Your task to perform on an android device: install app "LiveIn - Share Your Moment" Image 0: 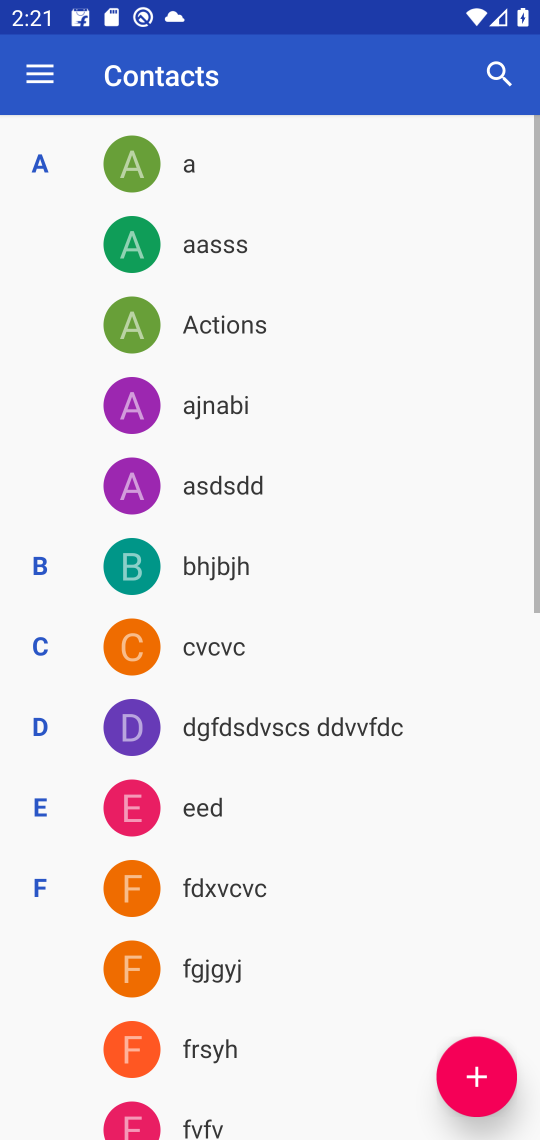
Step 0: press home button
Your task to perform on an android device: install app "LiveIn - Share Your Moment" Image 1: 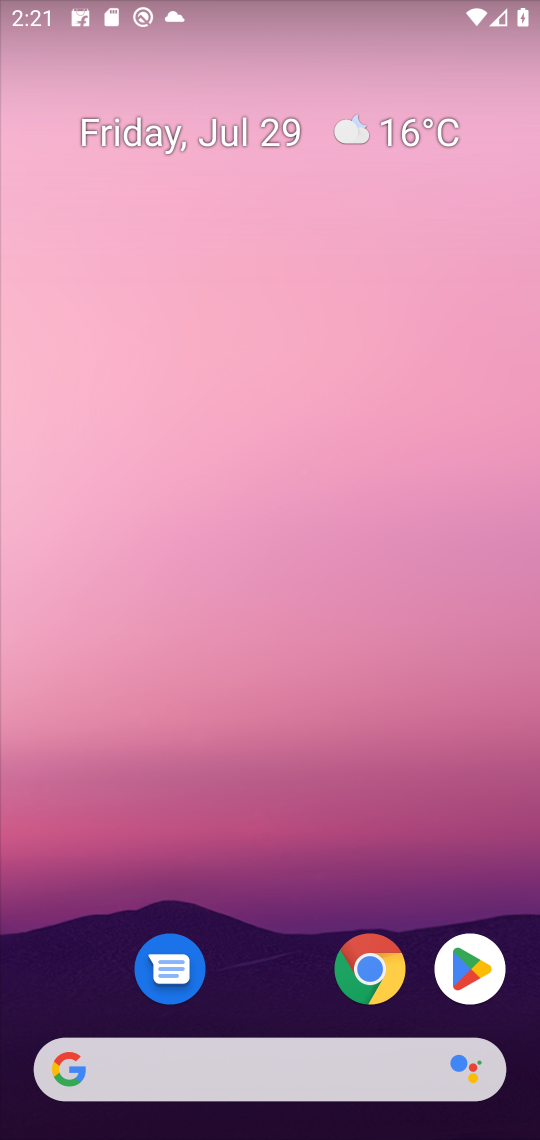
Step 1: click (483, 981)
Your task to perform on an android device: install app "LiveIn - Share Your Moment" Image 2: 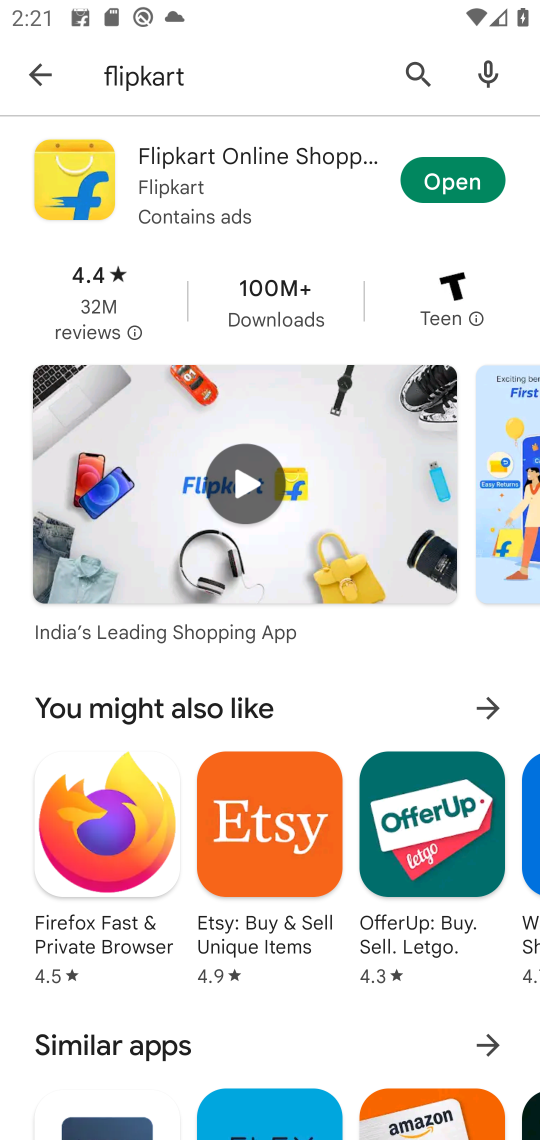
Step 2: click (425, 65)
Your task to perform on an android device: install app "LiveIn - Share Your Moment" Image 3: 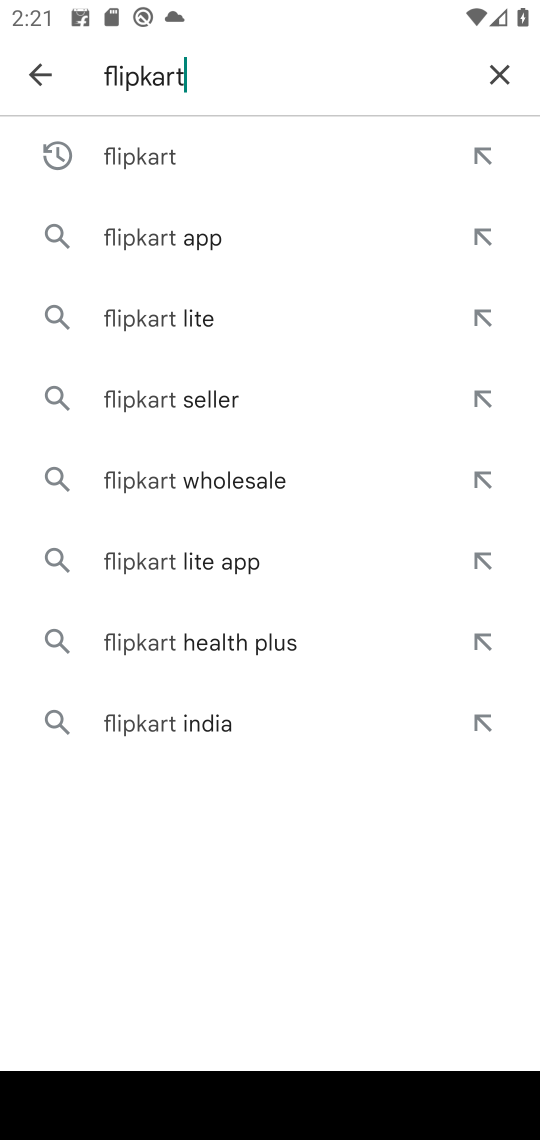
Step 3: click (506, 72)
Your task to perform on an android device: install app "LiveIn - Share Your Moment" Image 4: 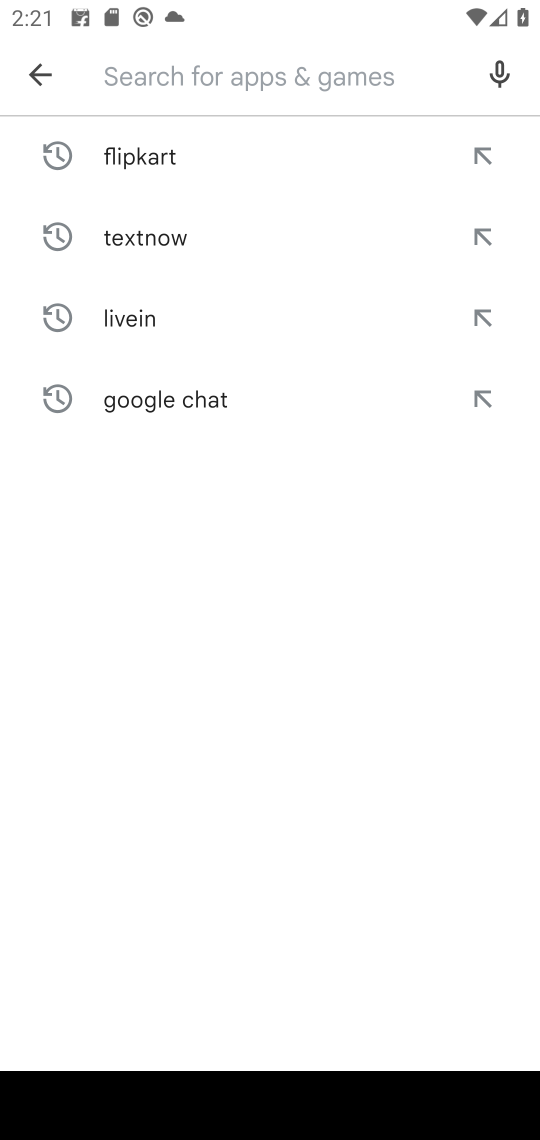
Step 4: type "livein "
Your task to perform on an android device: install app "LiveIn - Share Your Moment" Image 5: 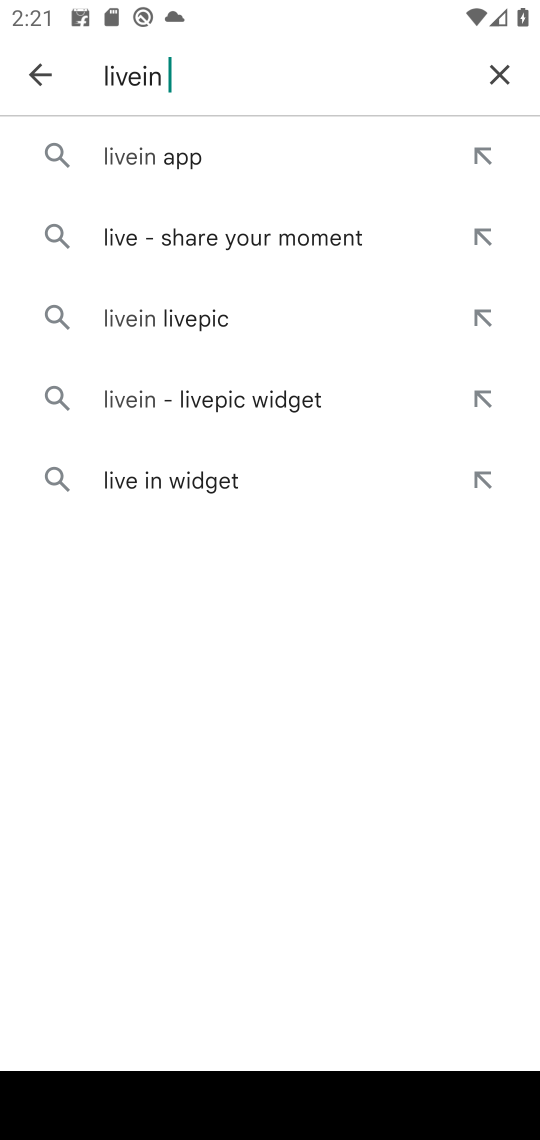
Step 5: click (227, 158)
Your task to perform on an android device: install app "LiveIn - Share Your Moment" Image 6: 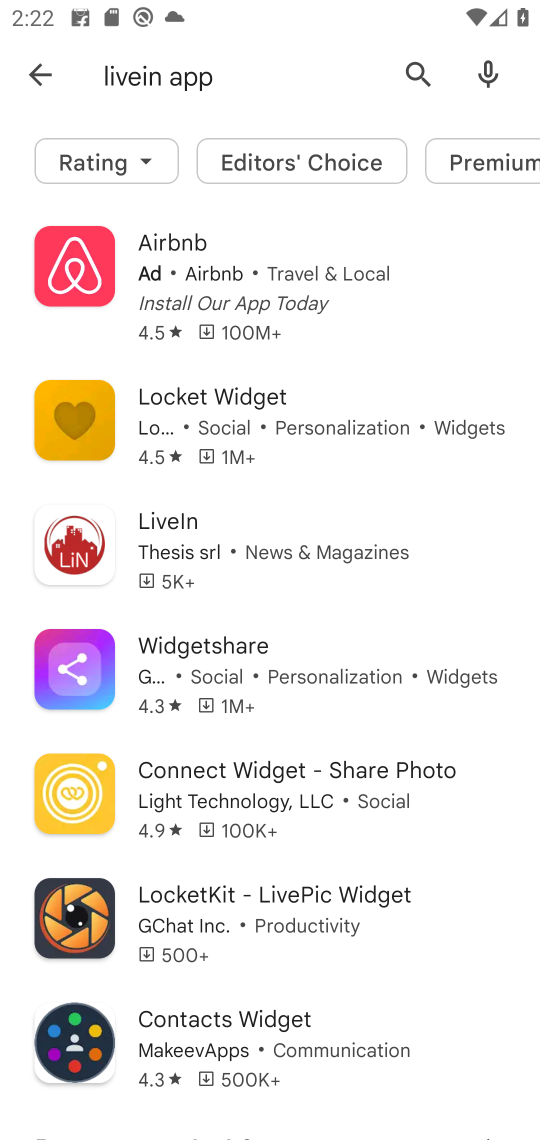
Step 6: click (267, 550)
Your task to perform on an android device: install app "LiveIn - Share Your Moment" Image 7: 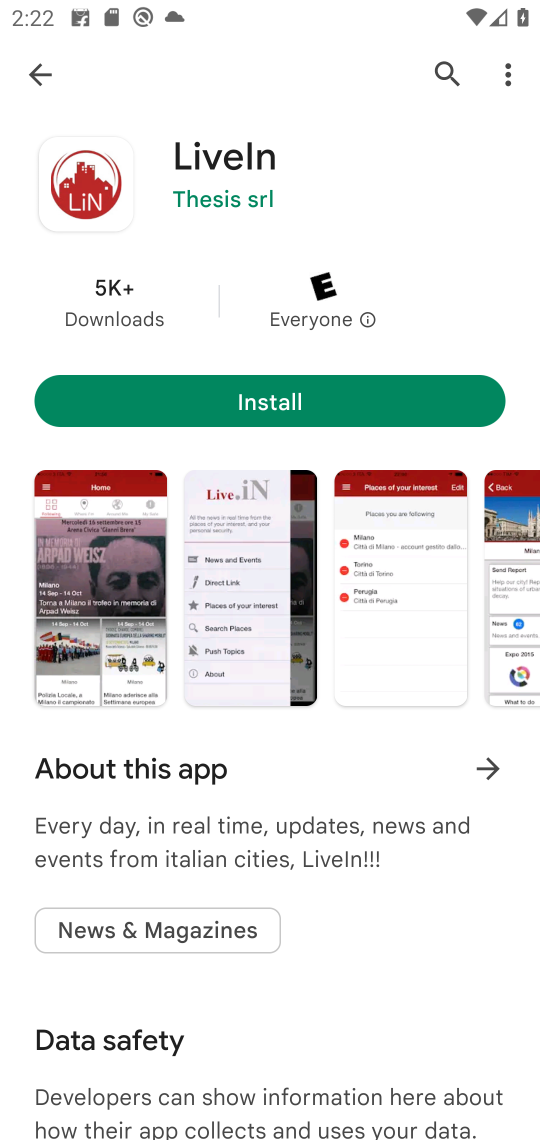
Step 7: click (276, 434)
Your task to perform on an android device: install app "LiveIn - Share Your Moment" Image 8: 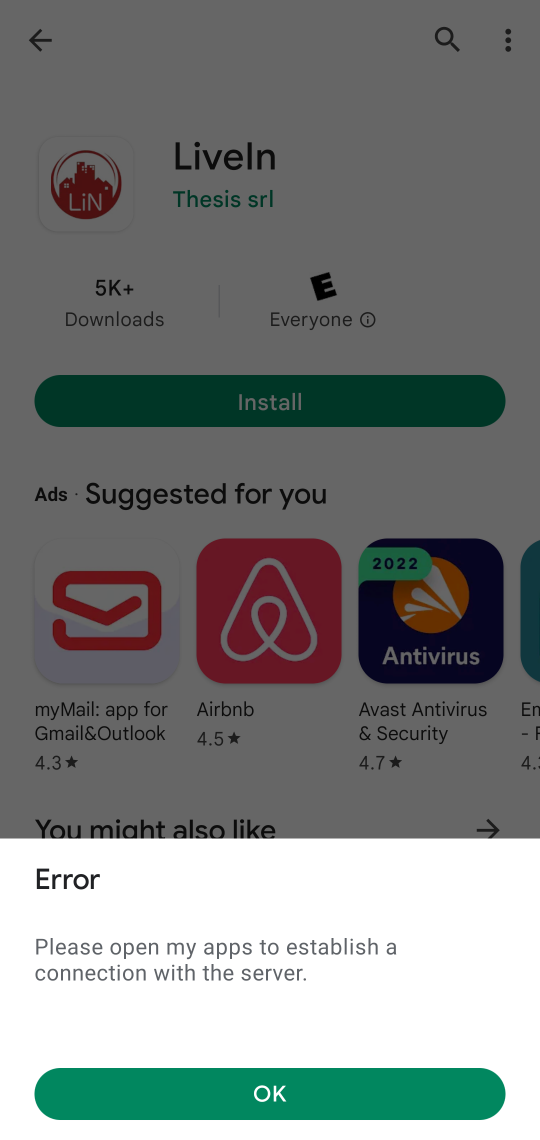
Step 8: task complete